Your task to perform on an android device: Open calendar and show me the second week of next month Image 0: 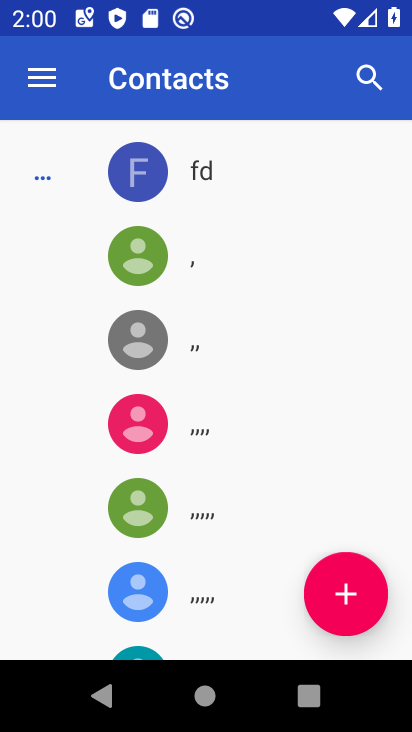
Step 0: press home button
Your task to perform on an android device: Open calendar and show me the second week of next month Image 1: 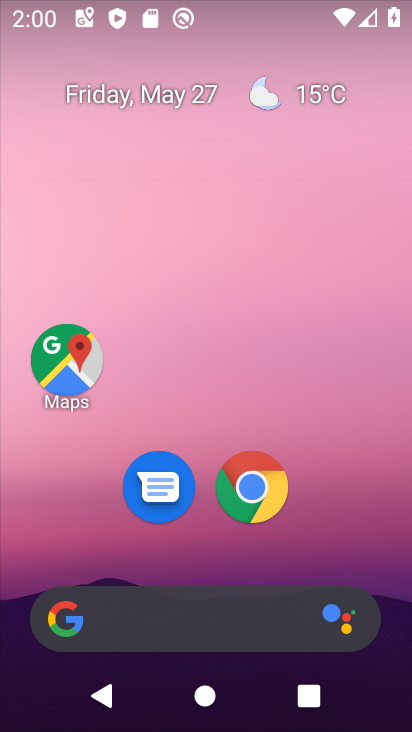
Step 1: click (155, 106)
Your task to perform on an android device: Open calendar and show me the second week of next month Image 2: 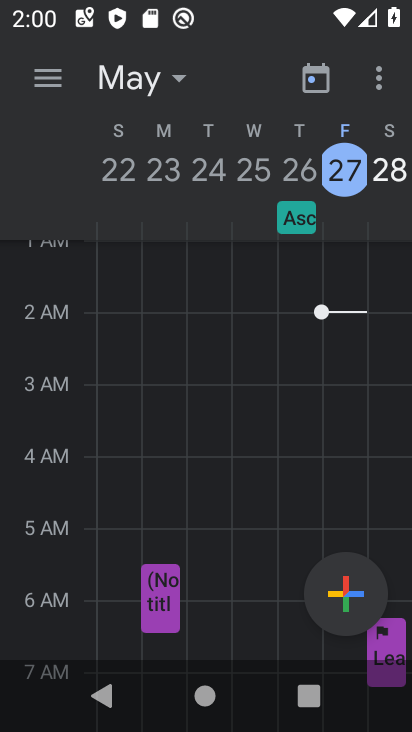
Step 2: click (148, 75)
Your task to perform on an android device: Open calendar and show me the second week of next month Image 3: 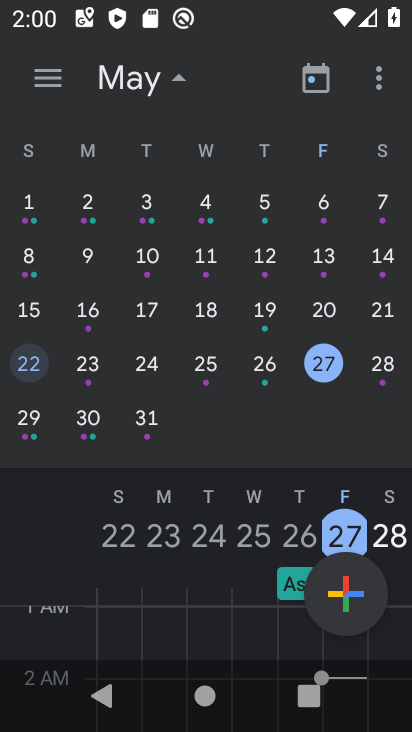
Step 3: drag from (371, 422) to (45, 380)
Your task to perform on an android device: Open calendar and show me the second week of next month Image 4: 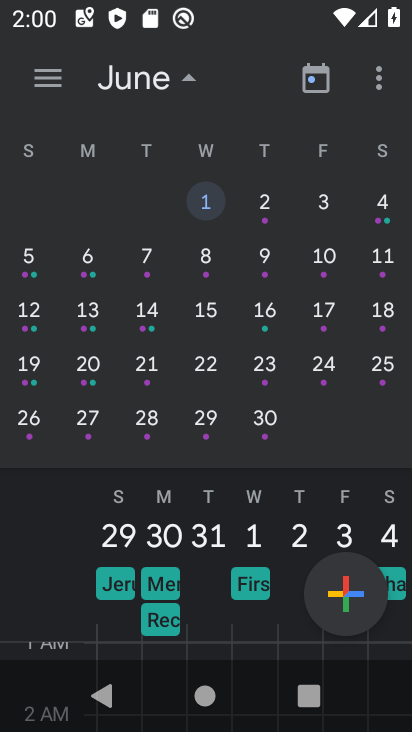
Step 4: click (196, 270)
Your task to perform on an android device: Open calendar and show me the second week of next month Image 5: 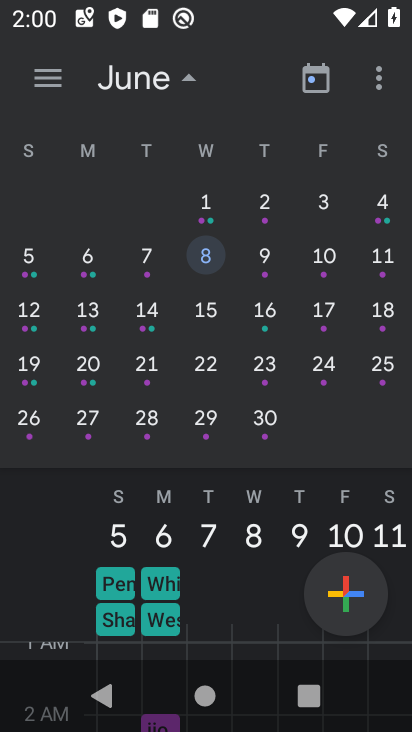
Step 5: task complete